Your task to perform on an android device: Open Youtube and go to the subscriptions tab Image 0: 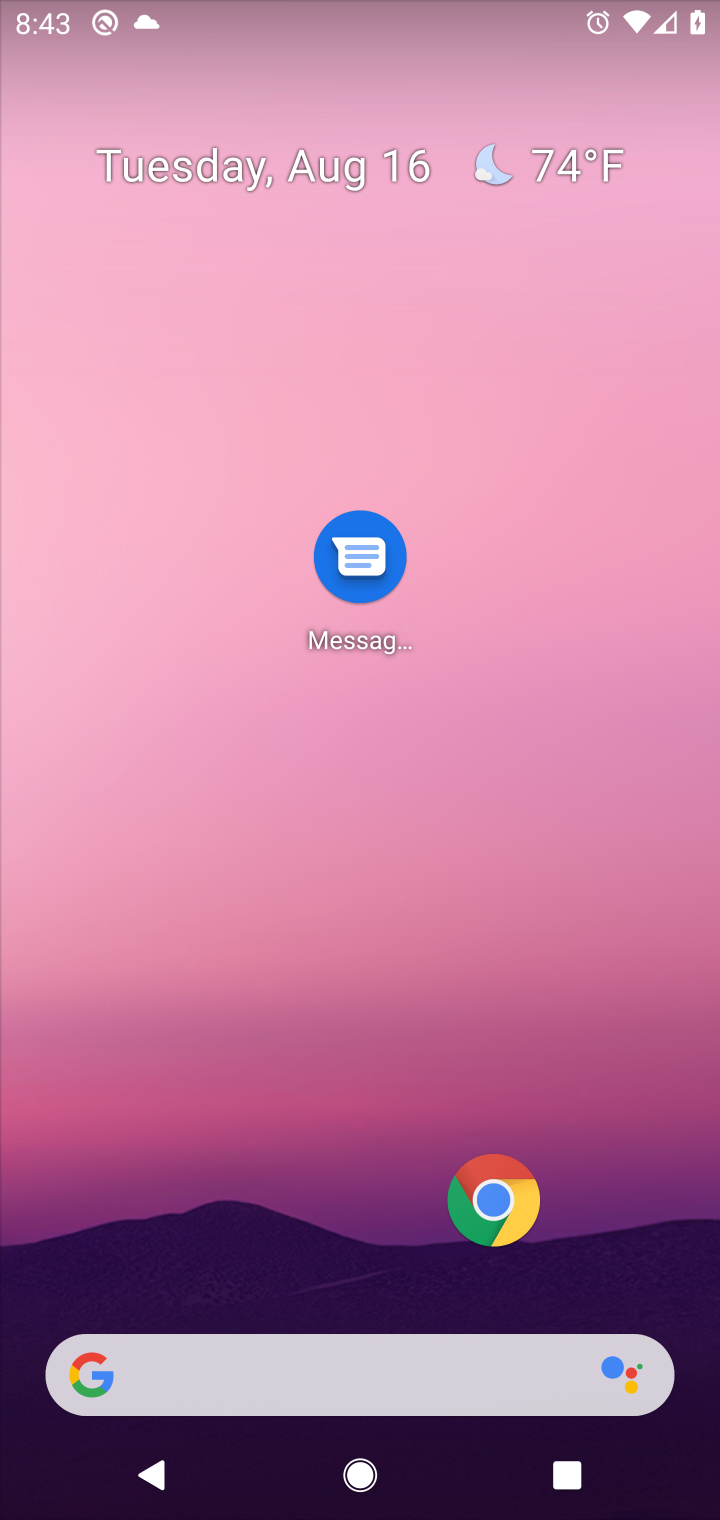
Step 0: drag from (49, 1447) to (427, 649)
Your task to perform on an android device: Open Youtube and go to the subscriptions tab Image 1: 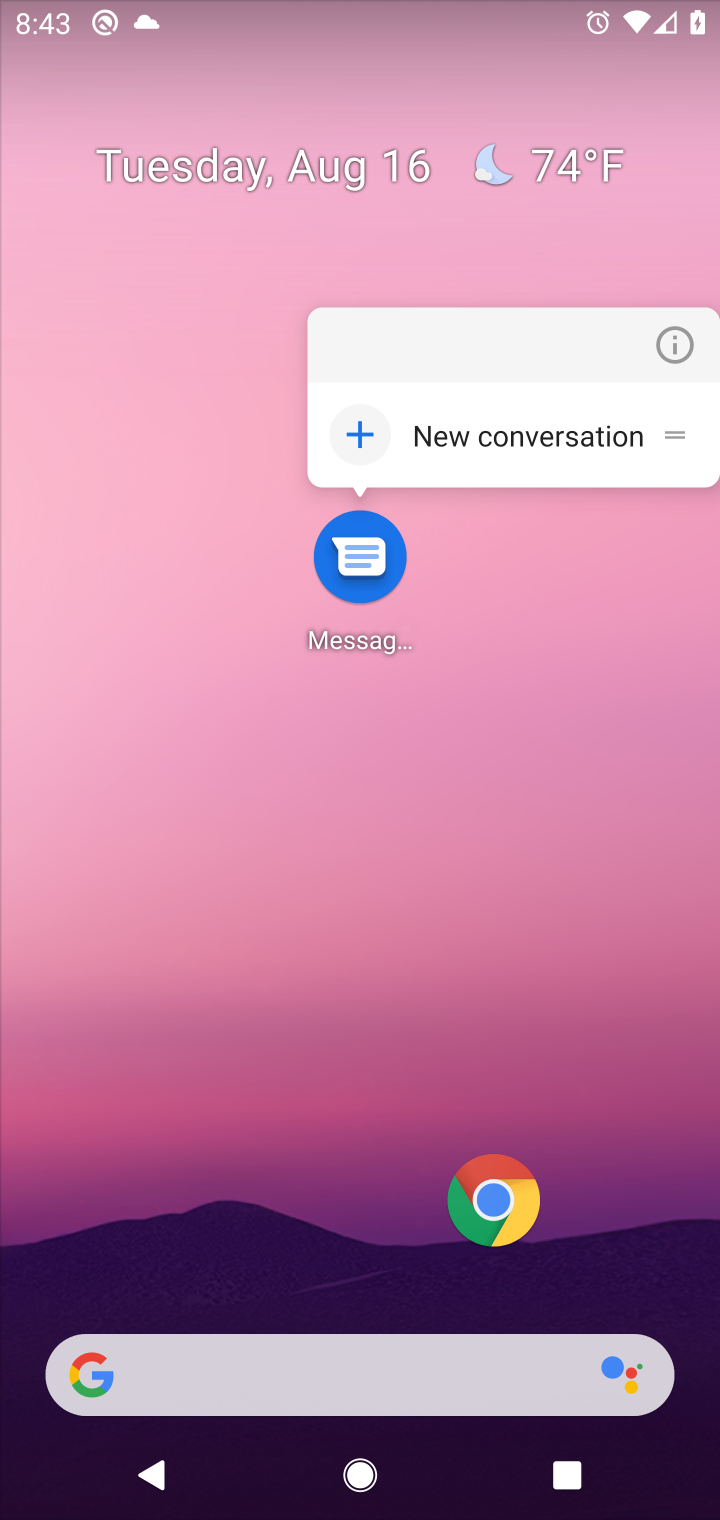
Step 1: drag from (38, 1440) to (95, 490)
Your task to perform on an android device: Open Youtube and go to the subscriptions tab Image 2: 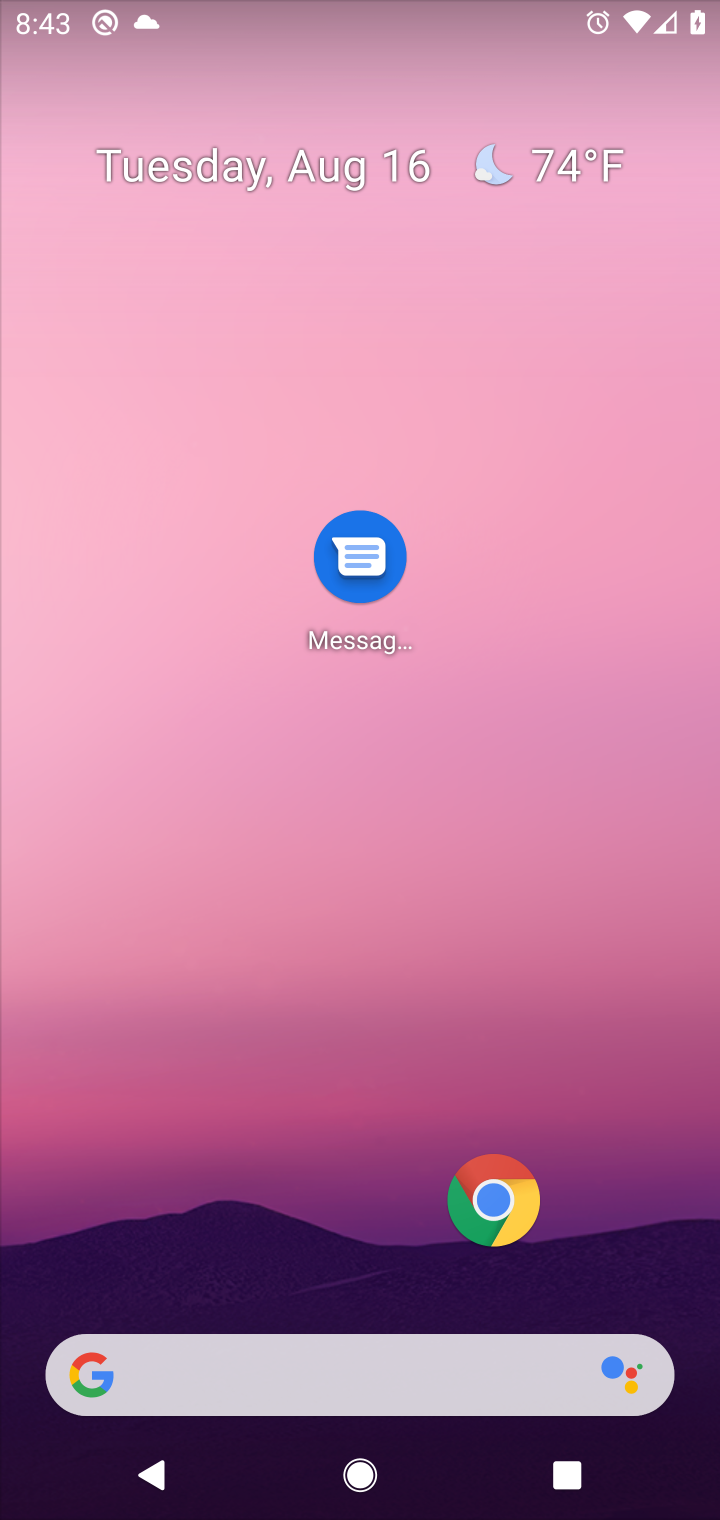
Step 2: click (95, 490)
Your task to perform on an android device: Open Youtube and go to the subscriptions tab Image 3: 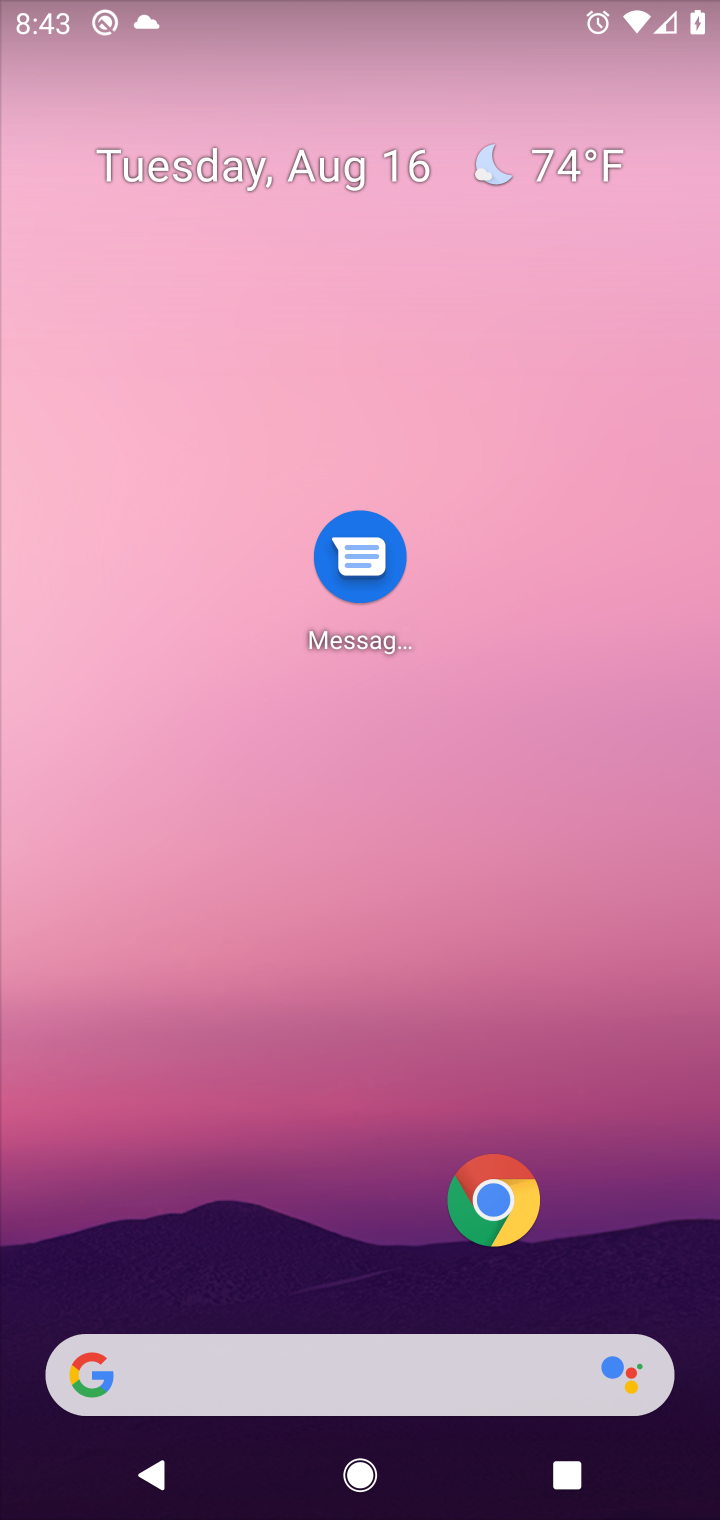
Step 3: drag from (64, 1454) to (225, 347)
Your task to perform on an android device: Open Youtube and go to the subscriptions tab Image 4: 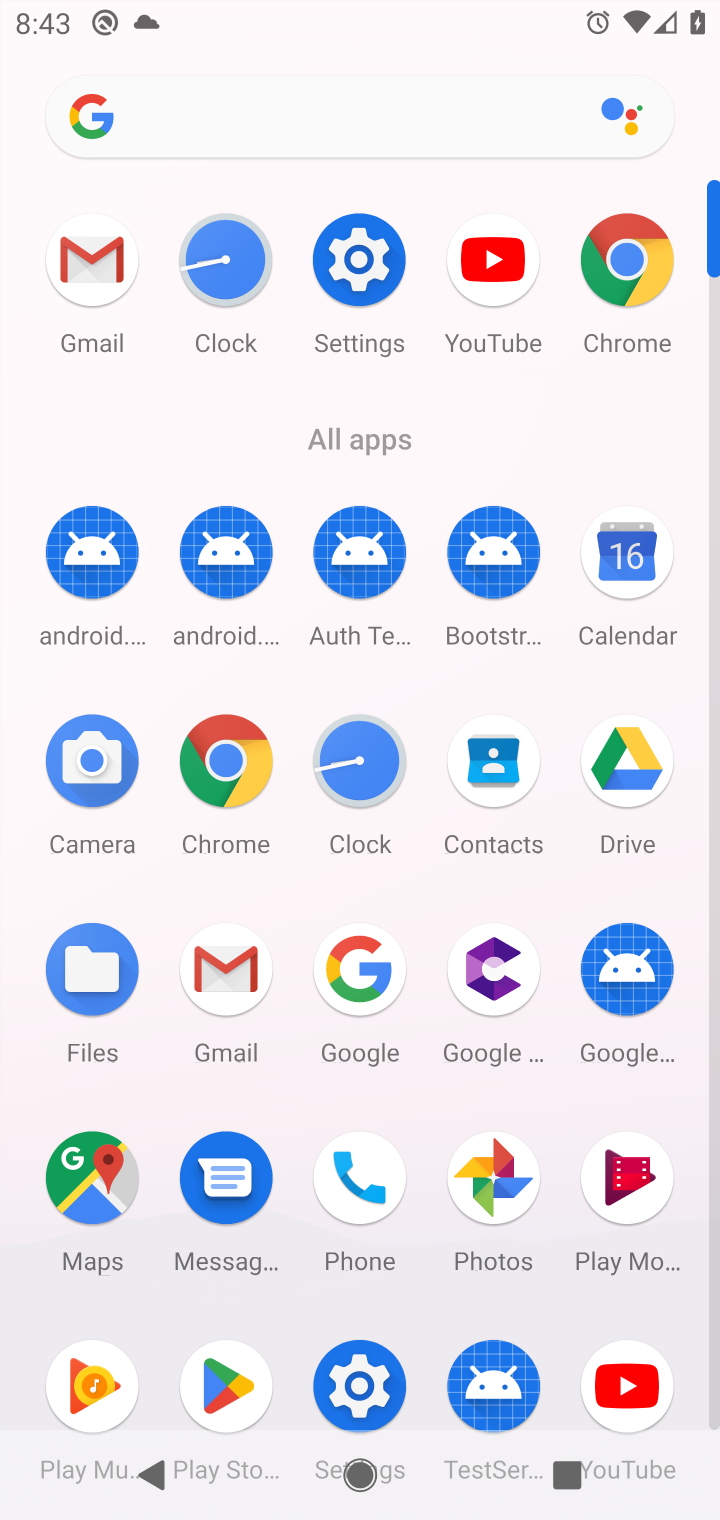
Step 4: click (634, 1414)
Your task to perform on an android device: Open Youtube and go to the subscriptions tab Image 5: 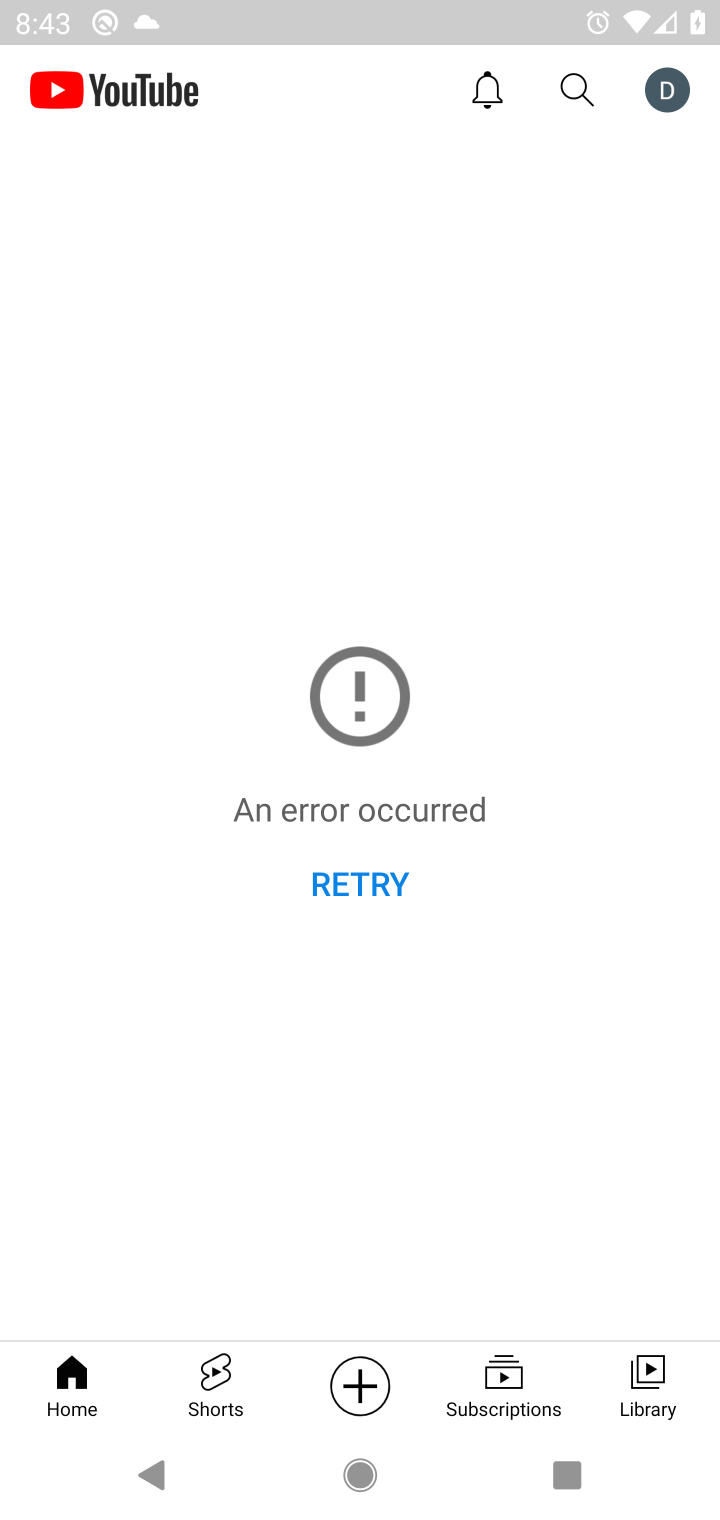
Step 5: click (500, 1403)
Your task to perform on an android device: Open Youtube and go to the subscriptions tab Image 6: 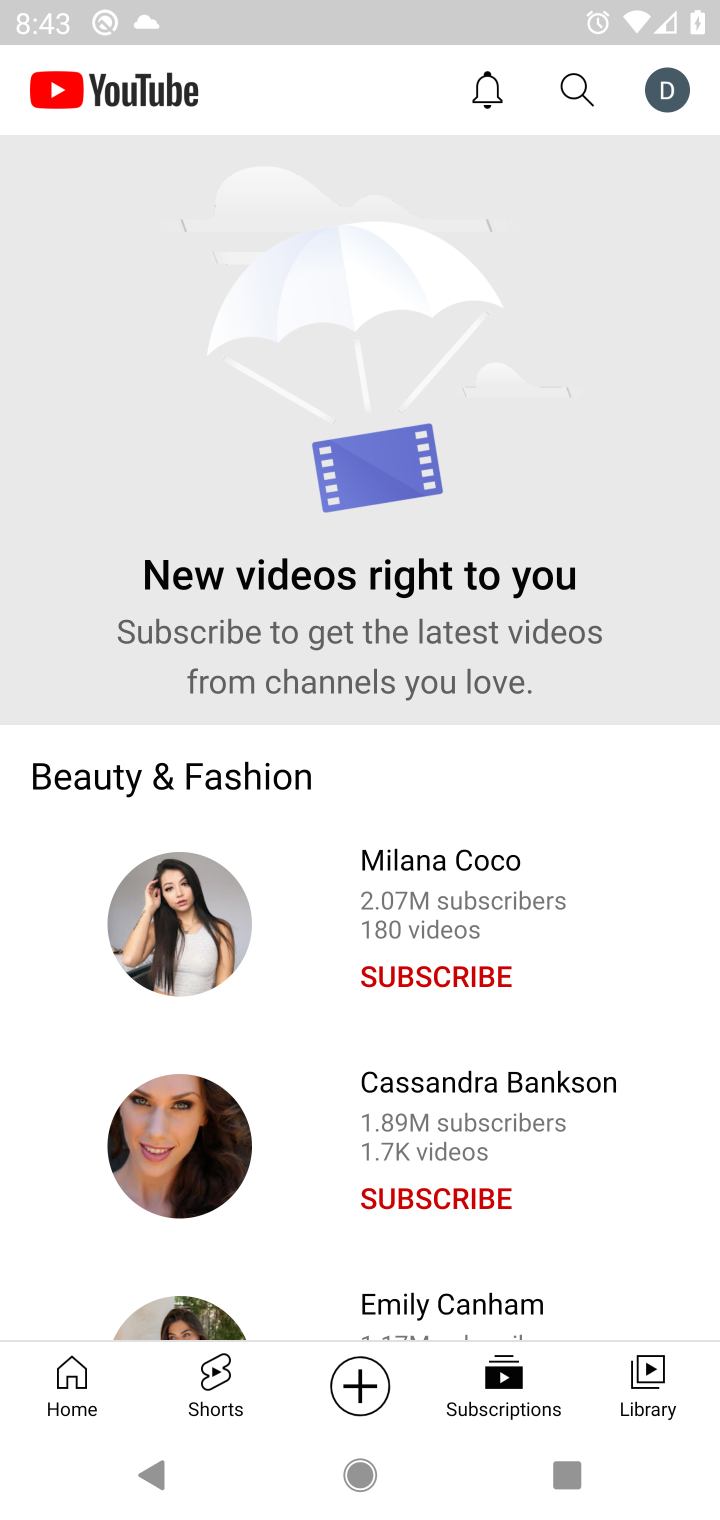
Step 6: task complete